Your task to perform on an android device: visit the assistant section in the google photos Image 0: 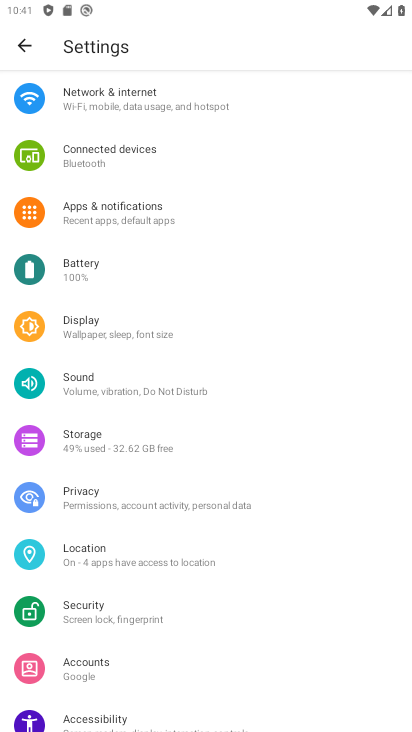
Step 0: press back button
Your task to perform on an android device: visit the assistant section in the google photos Image 1: 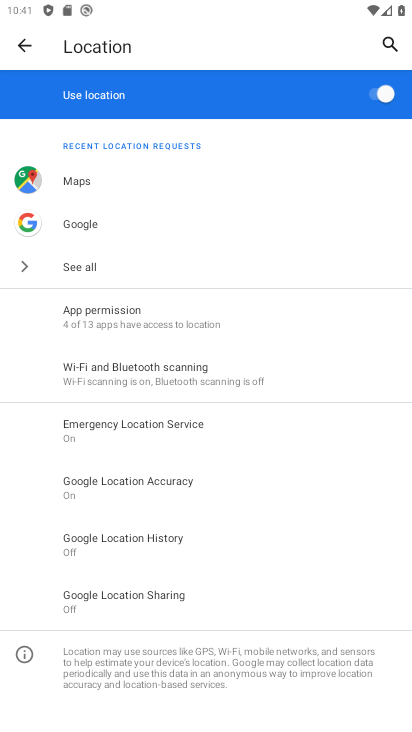
Step 1: press back button
Your task to perform on an android device: visit the assistant section in the google photos Image 2: 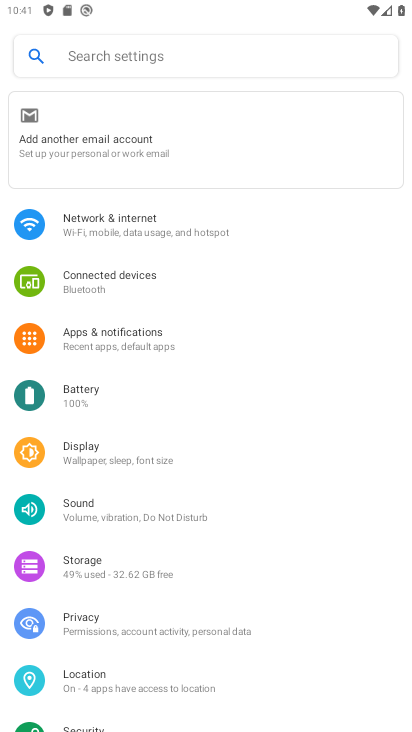
Step 2: press back button
Your task to perform on an android device: visit the assistant section in the google photos Image 3: 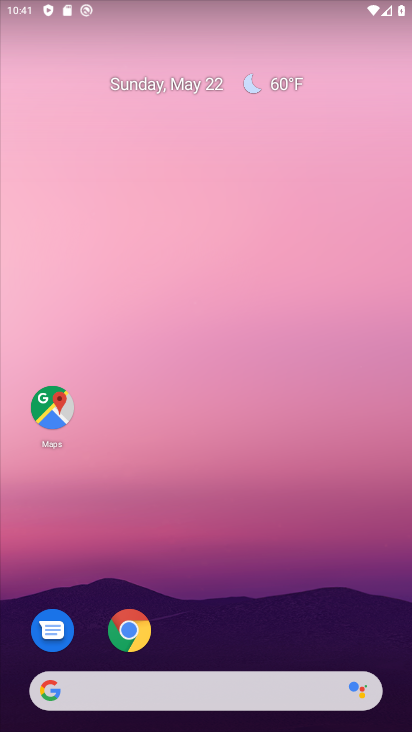
Step 3: drag from (244, 575) to (175, 57)
Your task to perform on an android device: visit the assistant section in the google photos Image 4: 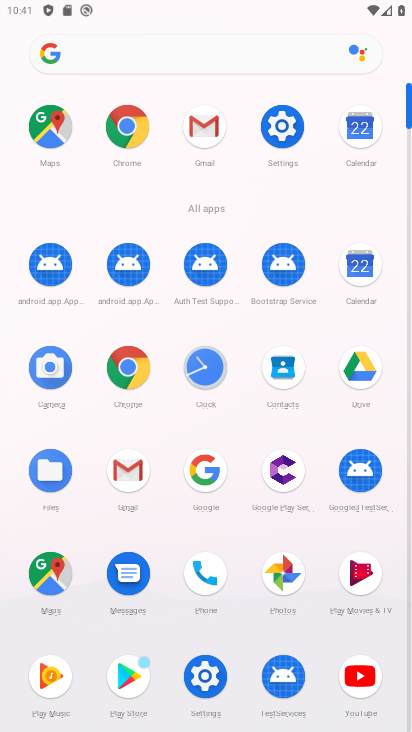
Step 4: click (282, 571)
Your task to perform on an android device: visit the assistant section in the google photos Image 5: 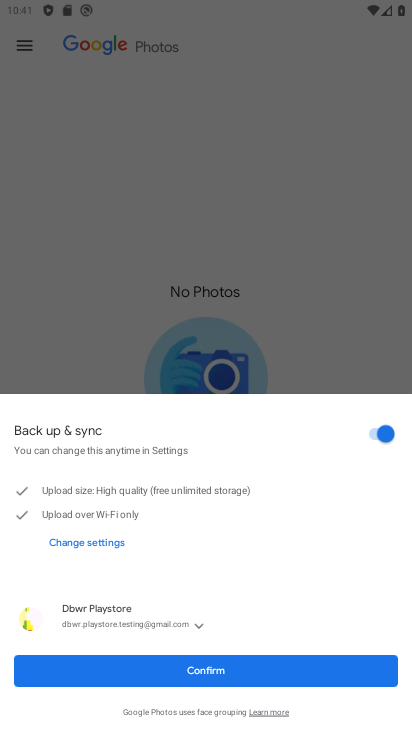
Step 5: click (243, 667)
Your task to perform on an android device: visit the assistant section in the google photos Image 6: 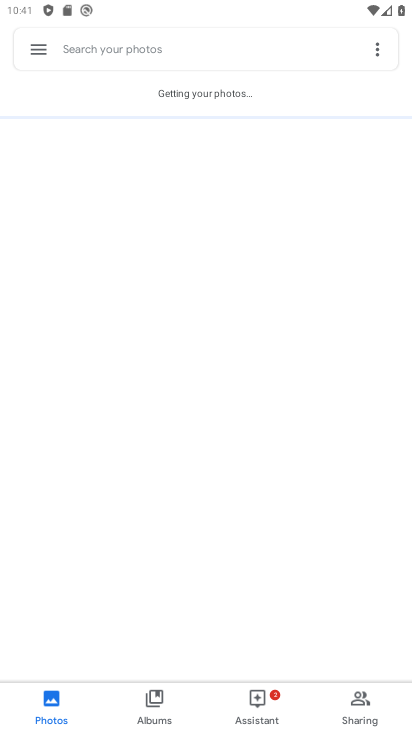
Step 6: click (259, 699)
Your task to perform on an android device: visit the assistant section in the google photos Image 7: 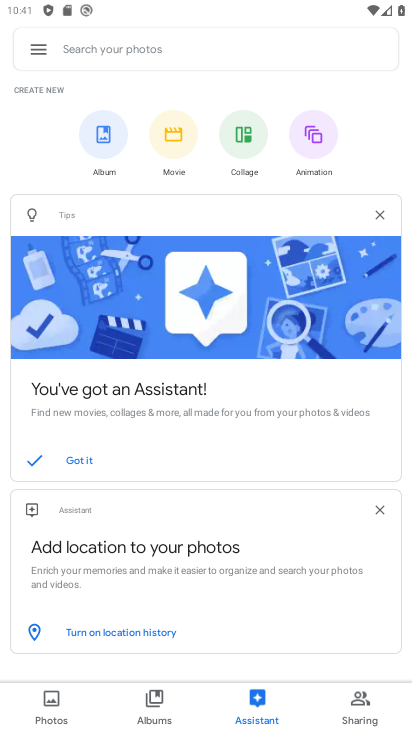
Step 7: task complete